Your task to perform on an android device: Empty the shopping cart on newegg.com. Image 0: 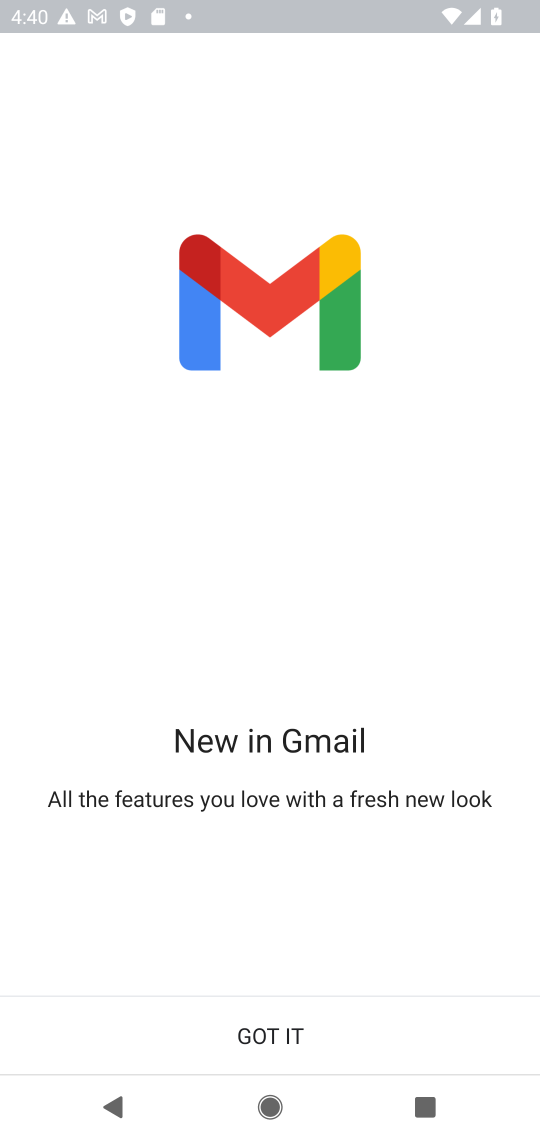
Step 0: press home button
Your task to perform on an android device: Empty the shopping cart on newegg.com. Image 1: 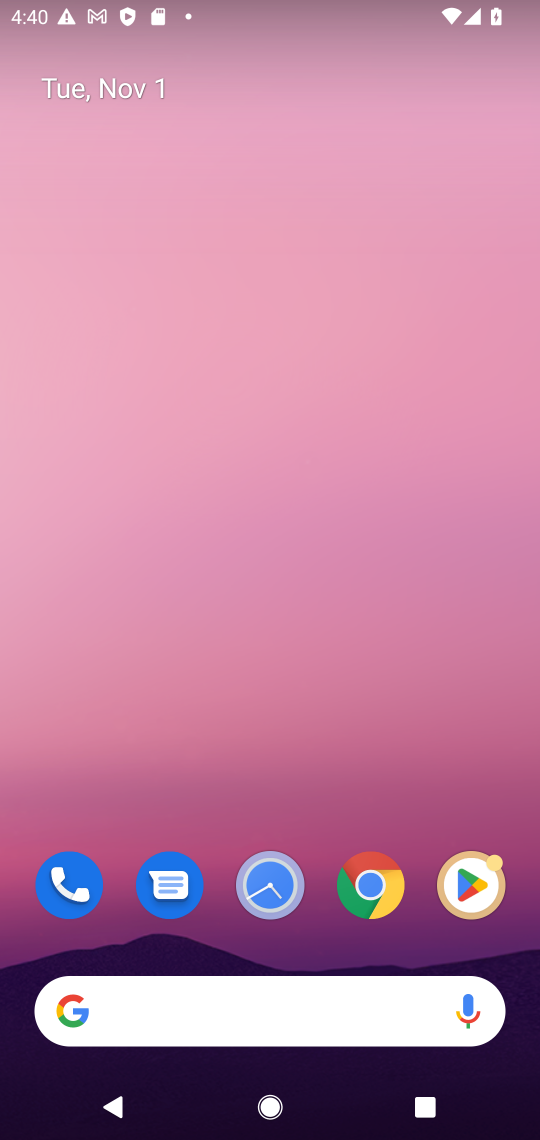
Step 1: click (368, 882)
Your task to perform on an android device: Empty the shopping cart on newegg.com. Image 2: 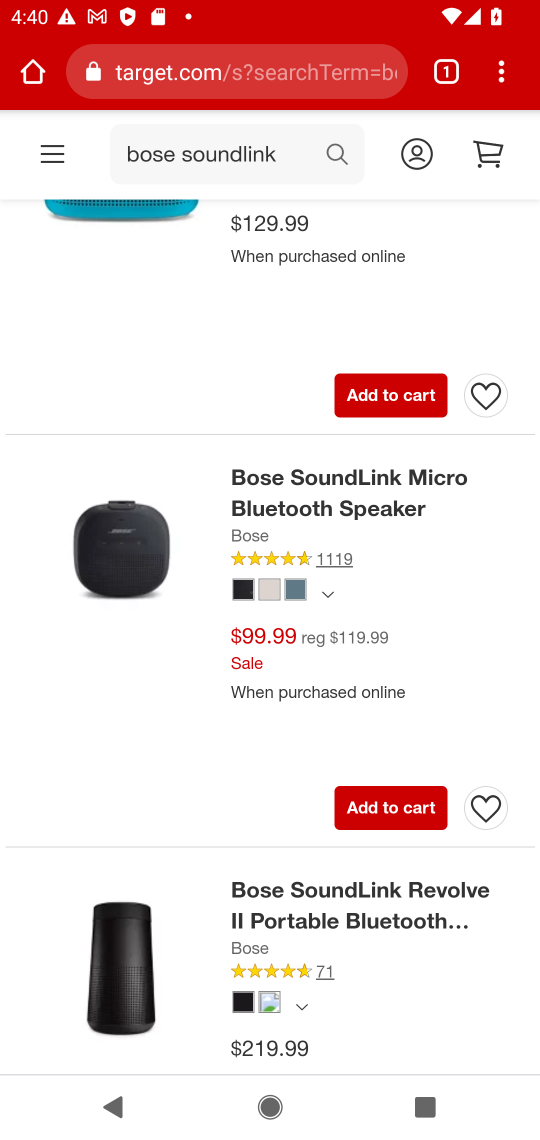
Step 2: click (230, 48)
Your task to perform on an android device: Empty the shopping cart on newegg.com. Image 3: 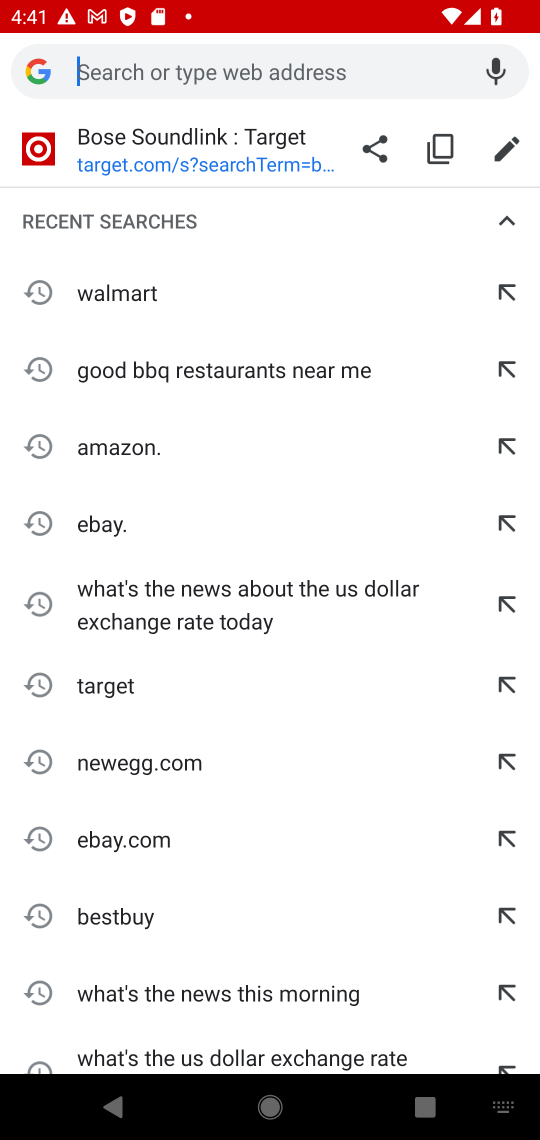
Step 3: type "newegg.com"
Your task to perform on an android device: Empty the shopping cart on newegg.com. Image 4: 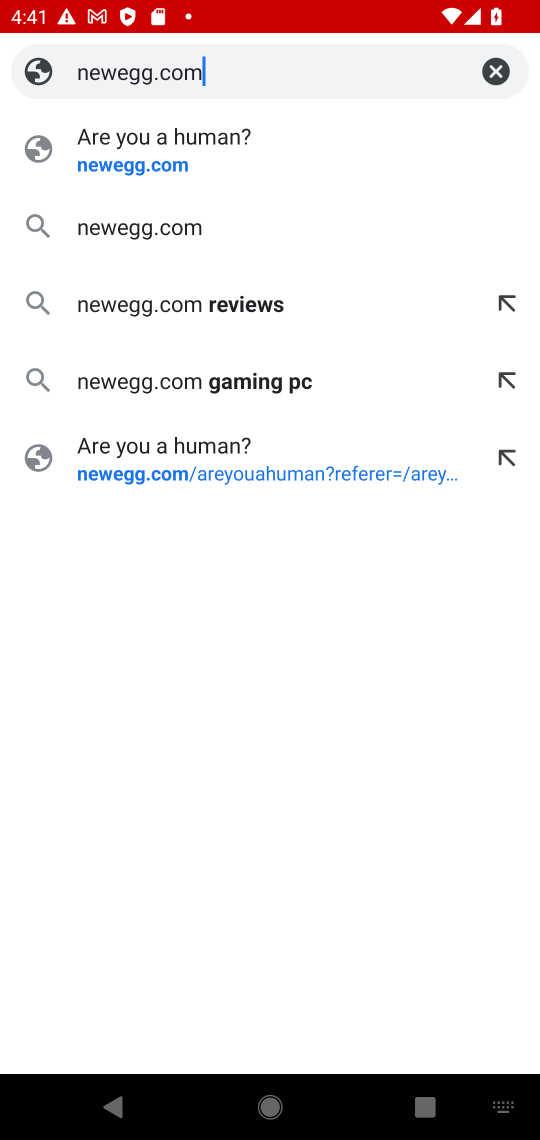
Step 4: click (143, 224)
Your task to perform on an android device: Empty the shopping cart on newegg.com. Image 5: 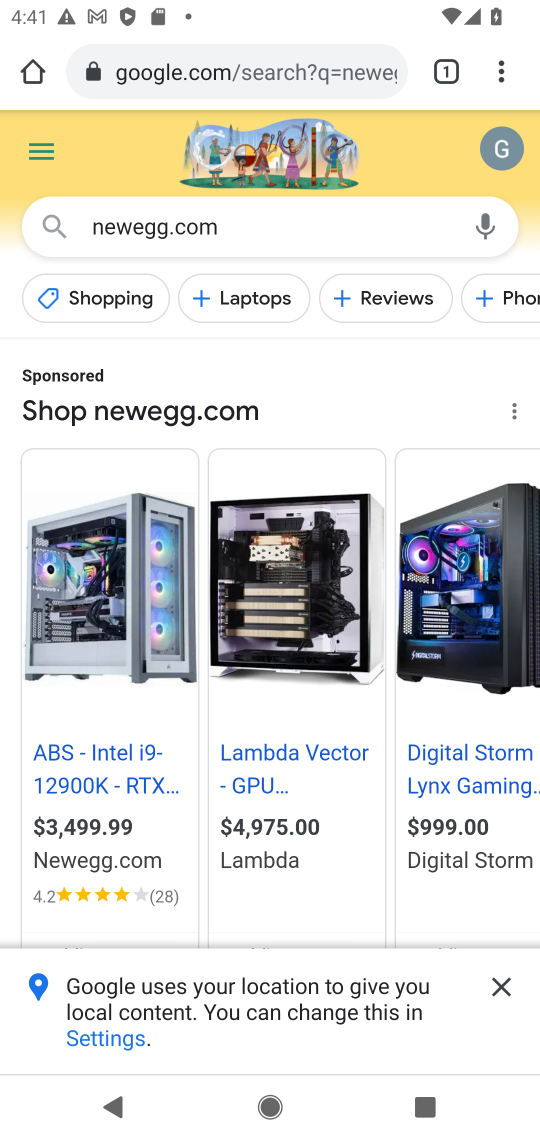
Step 5: drag from (307, 936) to (249, 62)
Your task to perform on an android device: Empty the shopping cart on newegg.com. Image 6: 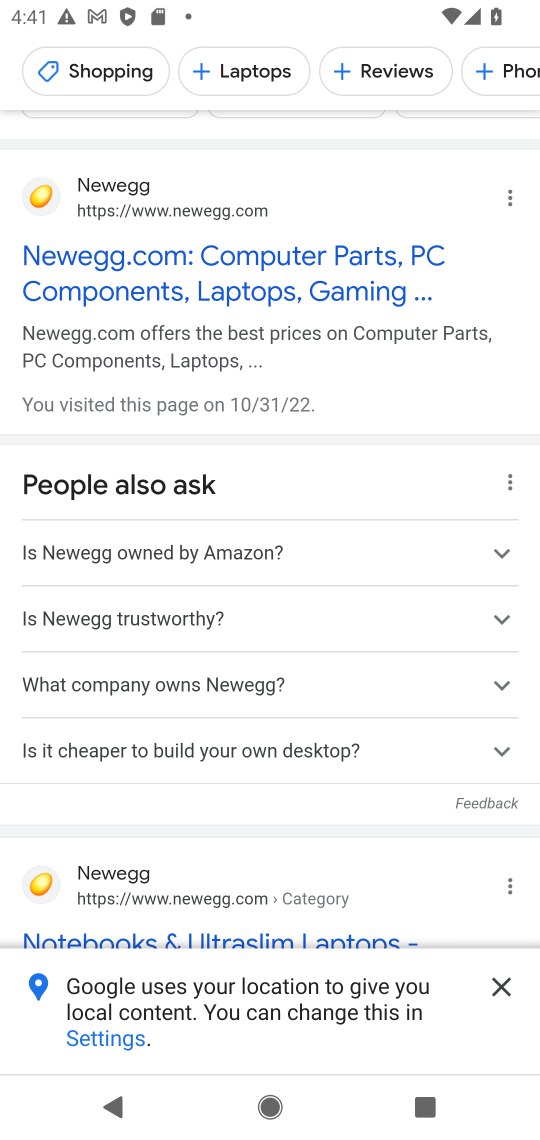
Step 6: click (119, 263)
Your task to perform on an android device: Empty the shopping cart on newegg.com. Image 7: 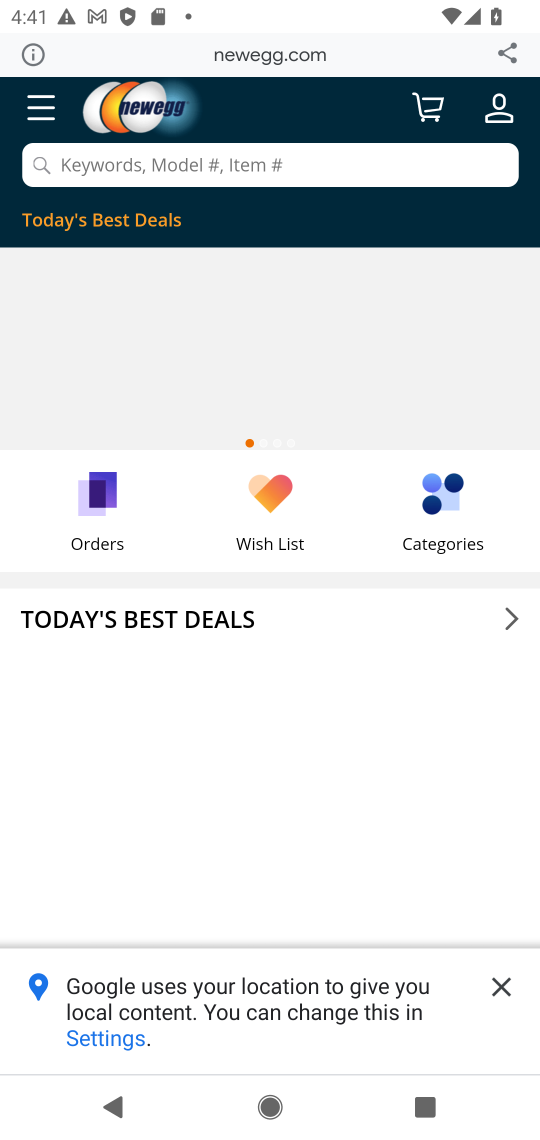
Step 7: click (101, 164)
Your task to perform on an android device: Empty the shopping cart on newegg.com. Image 8: 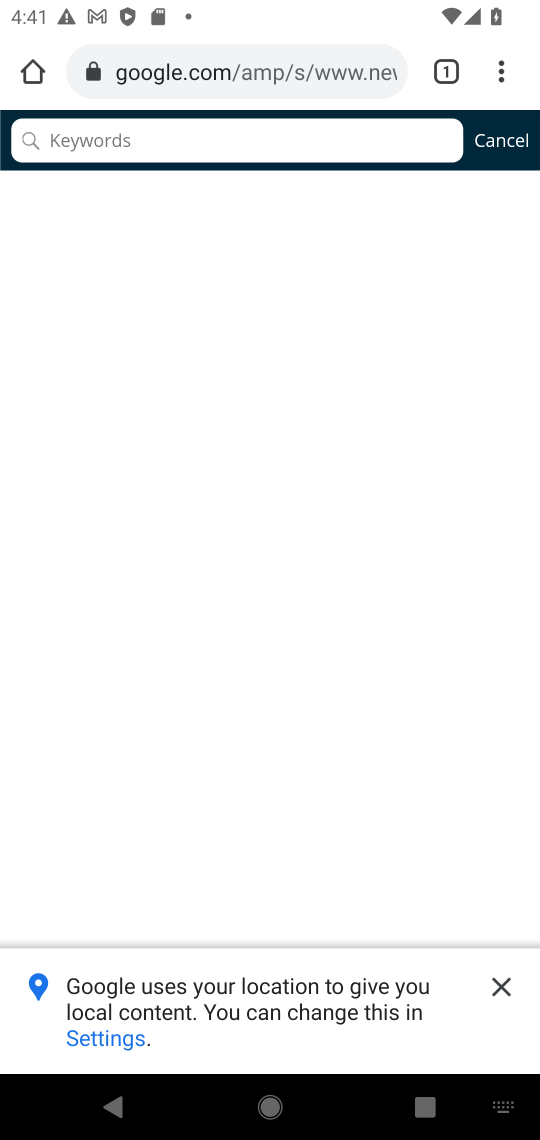
Step 8: click (481, 131)
Your task to perform on an android device: Empty the shopping cart on newegg.com. Image 9: 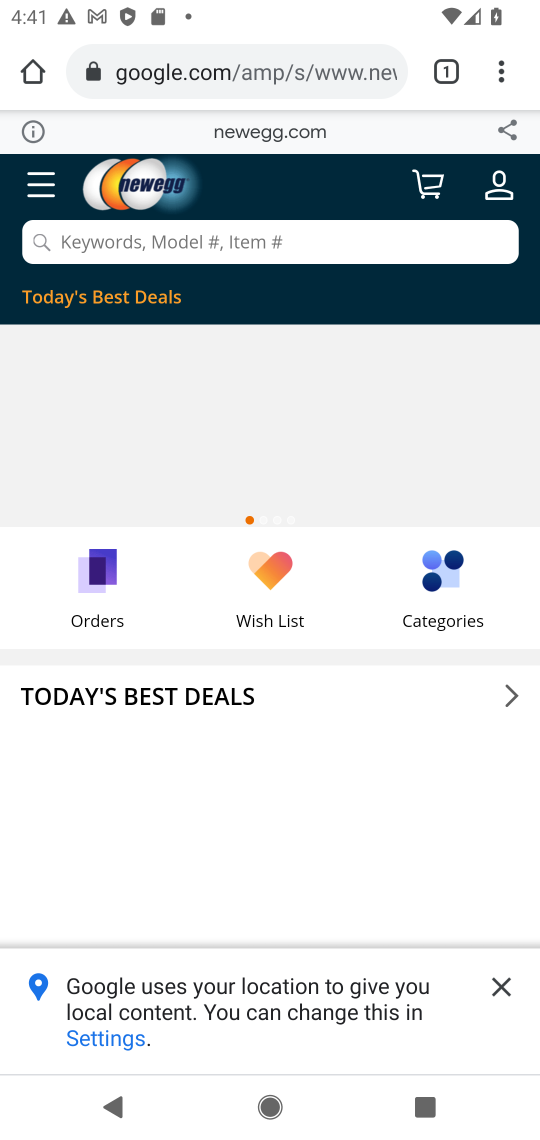
Step 9: click (434, 178)
Your task to perform on an android device: Empty the shopping cart on newegg.com. Image 10: 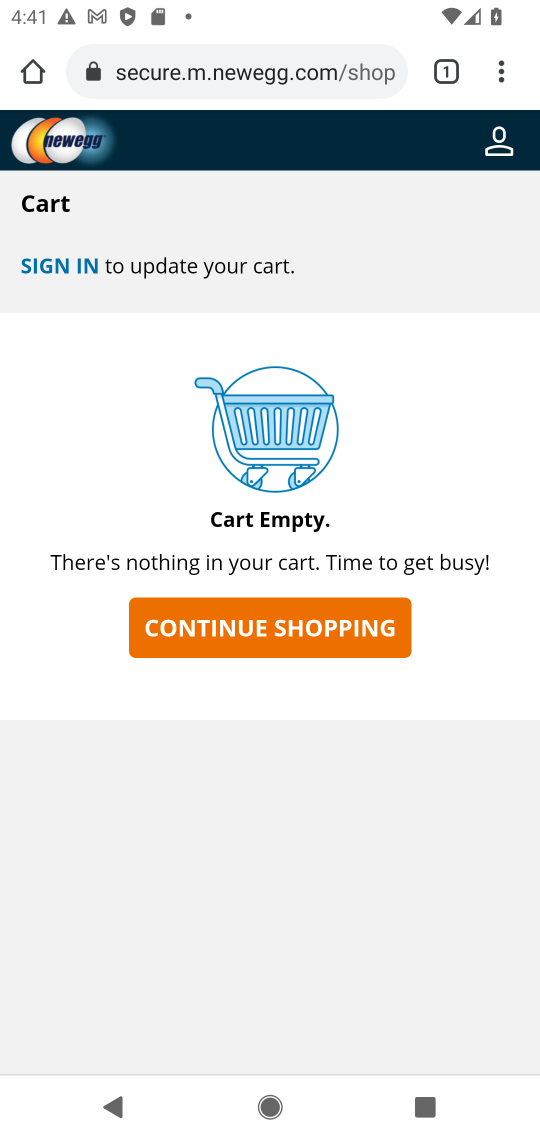
Step 10: task complete